Your task to perform on an android device: Open Yahoo.com Image 0: 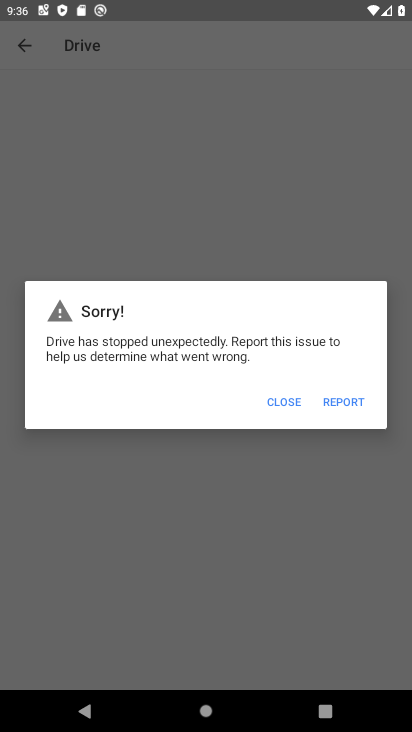
Step 0: press home button
Your task to perform on an android device: Open Yahoo.com Image 1: 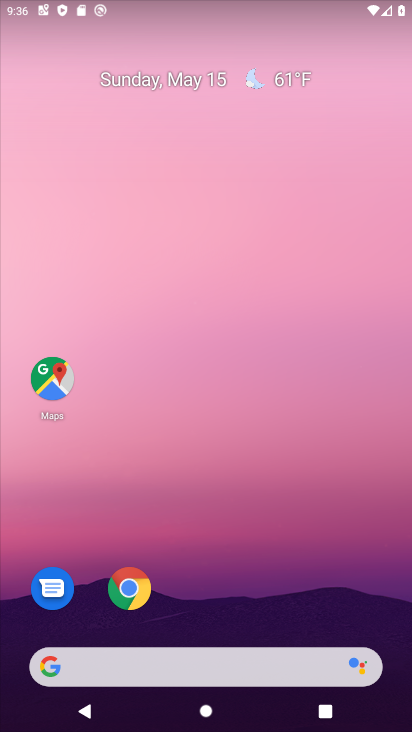
Step 1: drag from (207, 604) to (305, 76)
Your task to perform on an android device: Open Yahoo.com Image 2: 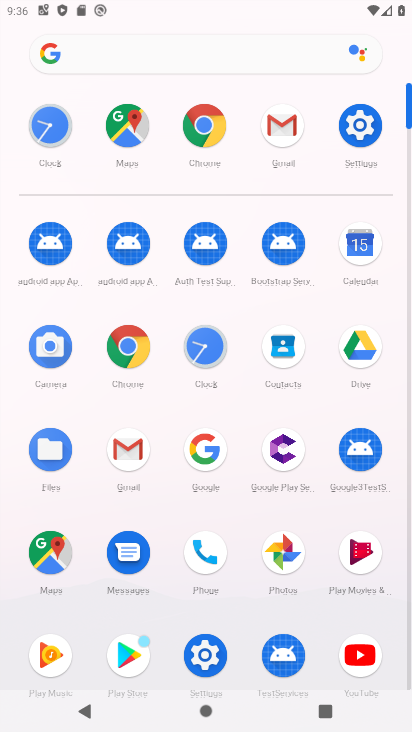
Step 2: click (202, 127)
Your task to perform on an android device: Open Yahoo.com Image 3: 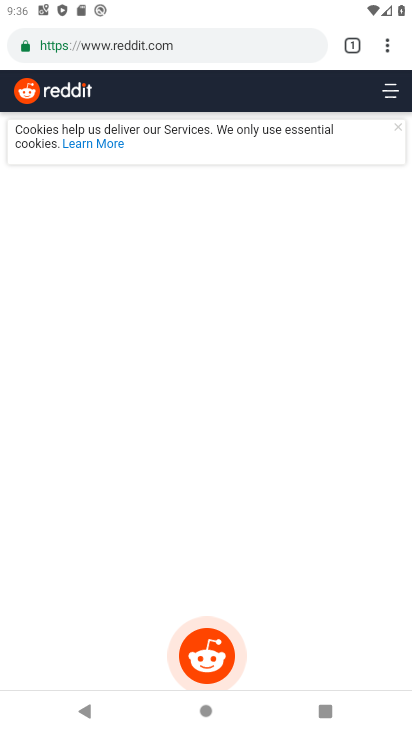
Step 3: click (198, 41)
Your task to perform on an android device: Open Yahoo.com Image 4: 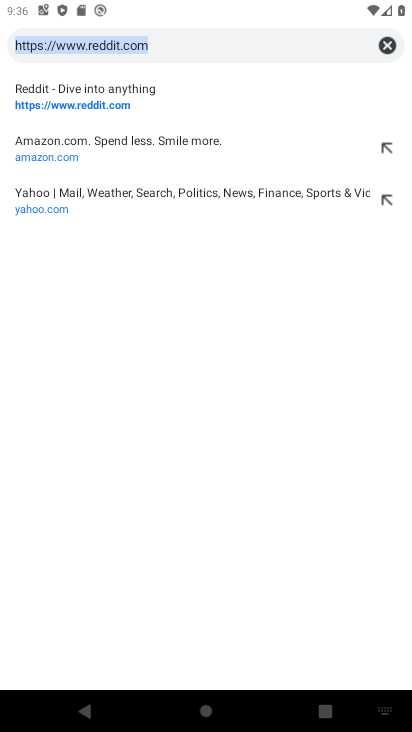
Step 4: type "yahoo.com"
Your task to perform on an android device: Open Yahoo.com Image 5: 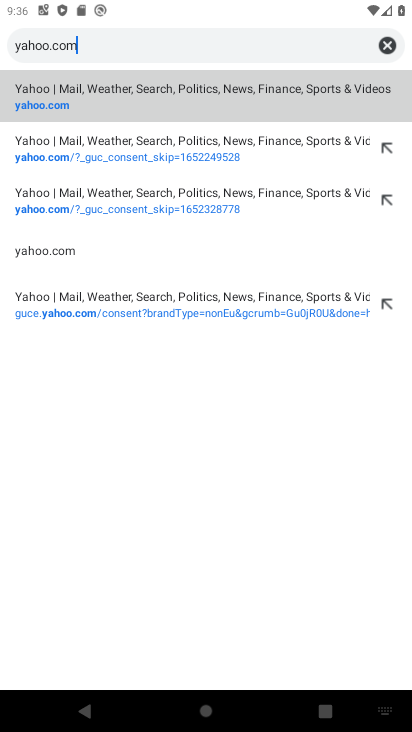
Step 5: click (257, 91)
Your task to perform on an android device: Open Yahoo.com Image 6: 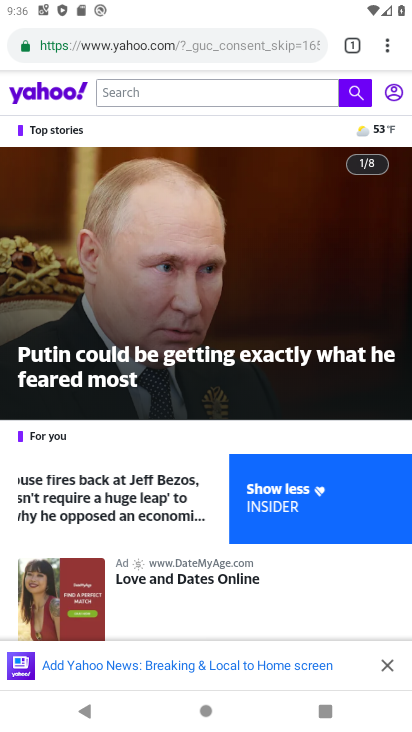
Step 6: task complete